Your task to perform on an android device: Open notification settings Image 0: 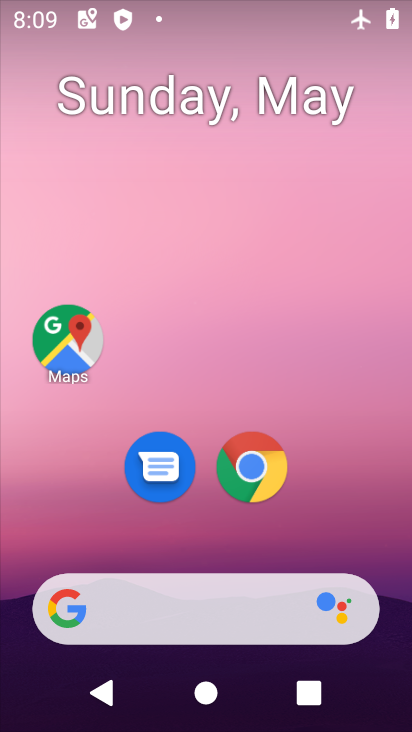
Step 0: drag from (201, 528) to (180, 52)
Your task to perform on an android device: Open notification settings Image 1: 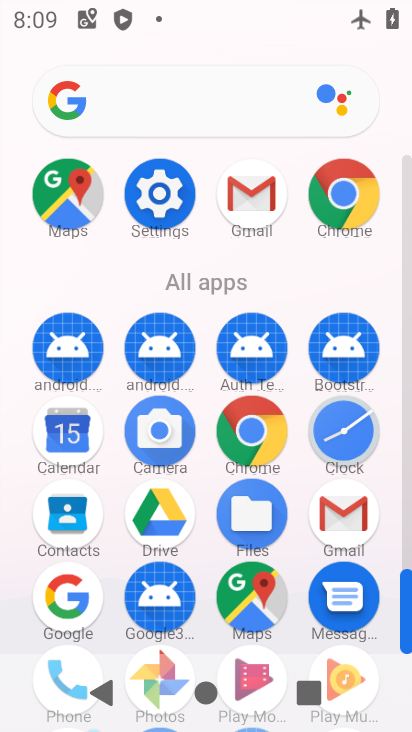
Step 1: click (130, 207)
Your task to perform on an android device: Open notification settings Image 2: 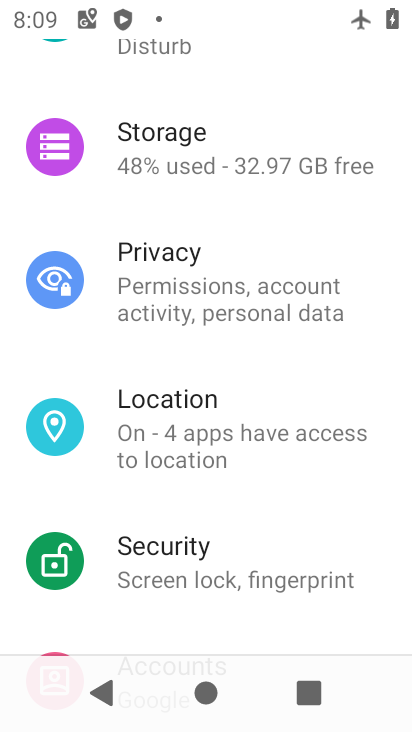
Step 2: drag from (130, 207) to (143, 603)
Your task to perform on an android device: Open notification settings Image 3: 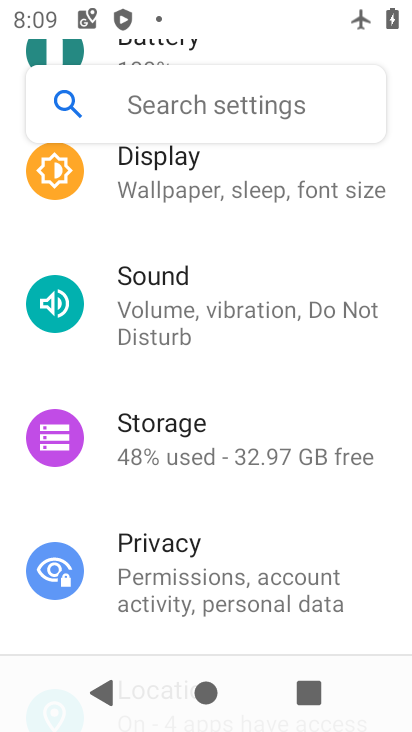
Step 3: drag from (87, 212) to (139, 614)
Your task to perform on an android device: Open notification settings Image 4: 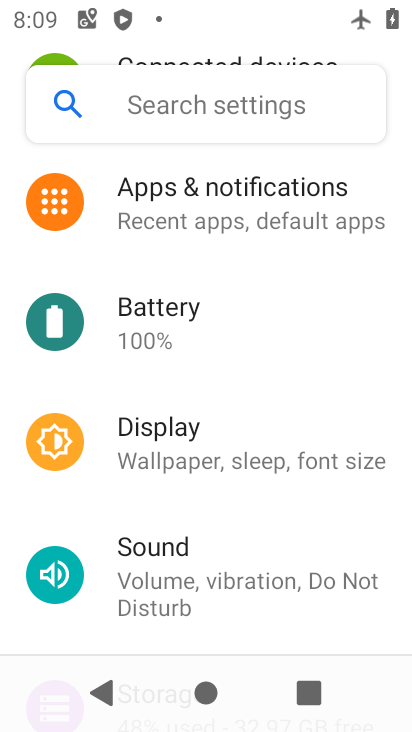
Step 4: click (150, 219)
Your task to perform on an android device: Open notification settings Image 5: 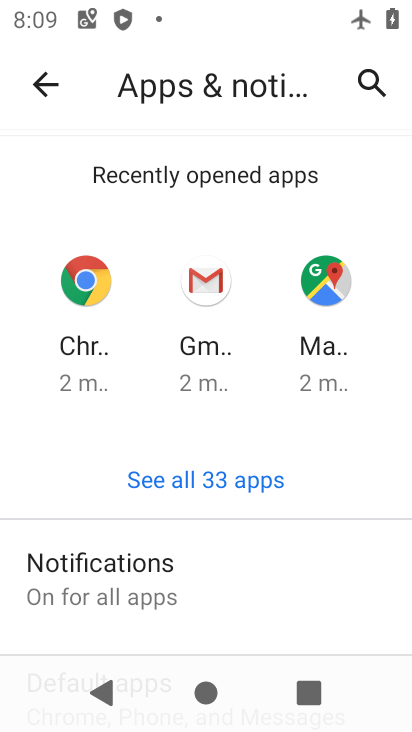
Step 5: task complete